Your task to perform on an android device: Turn off the flashlight Image 0: 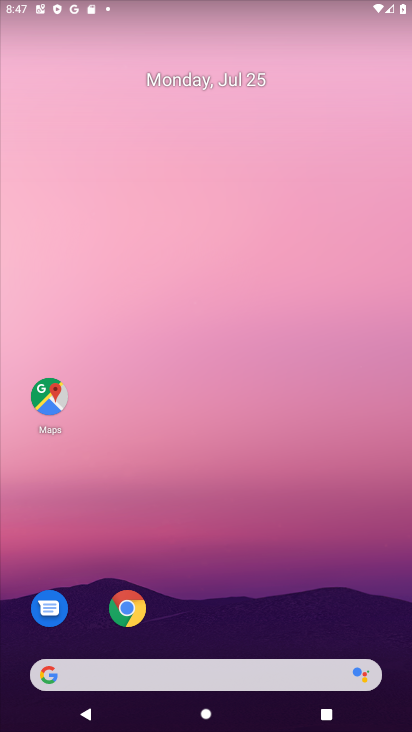
Step 0: drag from (231, 645) to (206, 196)
Your task to perform on an android device: Turn off the flashlight Image 1: 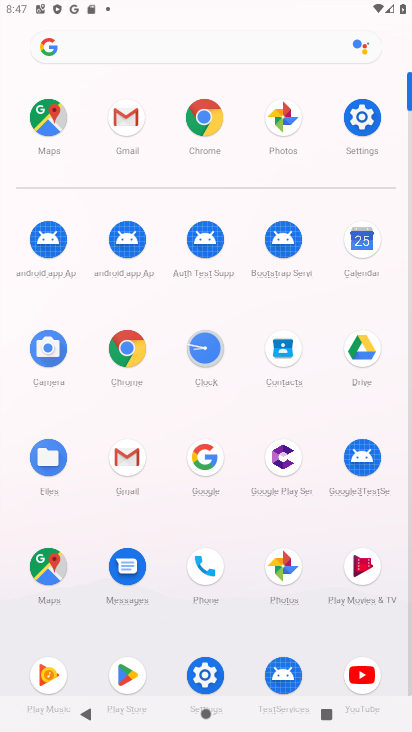
Step 1: click (365, 110)
Your task to perform on an android device: Turn off the flashlight Image 2: 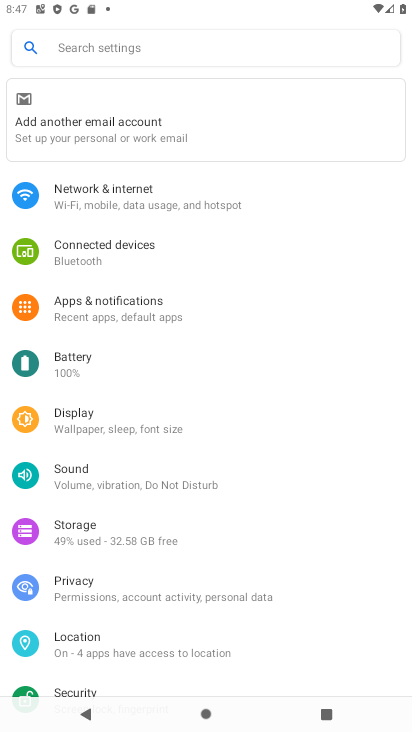
Step 2: task complete